Your task to perform on an android device: move a message to another label in the gmail app Image 0: 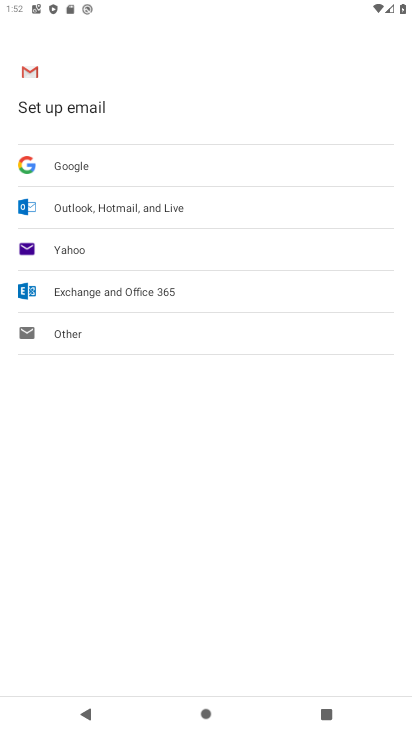
Step 0: press back button
Your task to perform on an android device: move a message to another label in the gmail app Image 1: 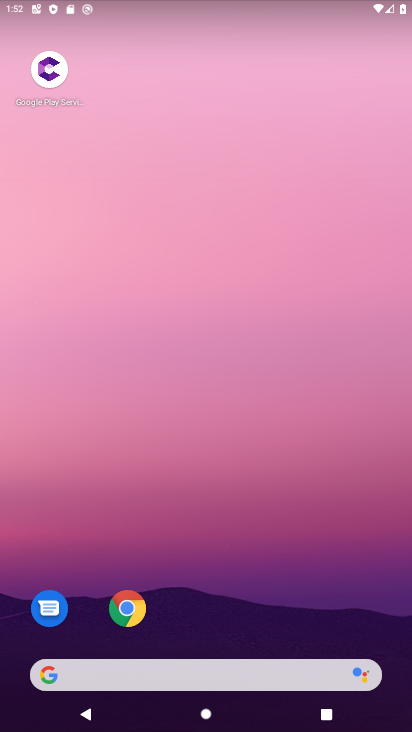
Step 1: drag from (235, 657) to (235, 207)
Your task to perform on an android device: move a message to another label in the gmail app Image 2: 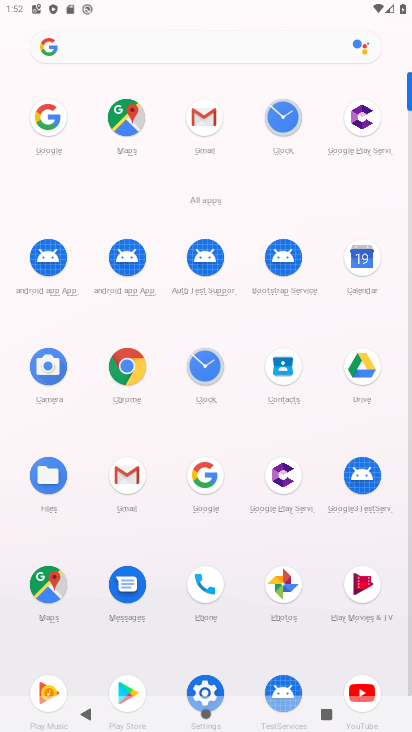
Step 2: click (200, 121)
Your task to perform on an android device: move a message to another label in the gmail app Image 3: 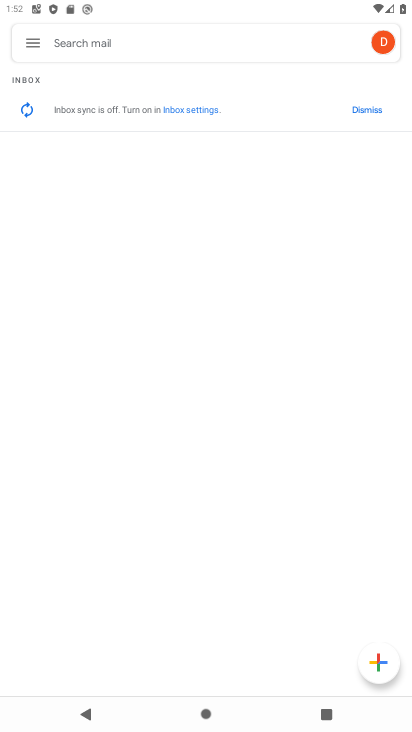
Step 3: click (30, 41)
Your task to perform on an android device: move a message to another label in the gmail app Image 4: 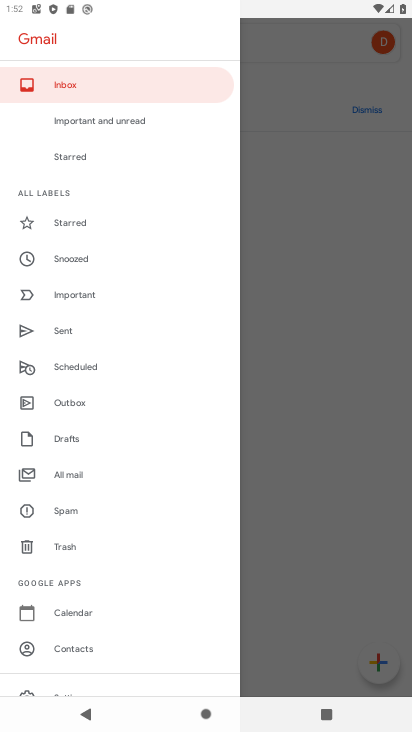
Step 4: click (72, 86)
Your task to perform on an android device: move a message to another label in the gmail app Image 5: 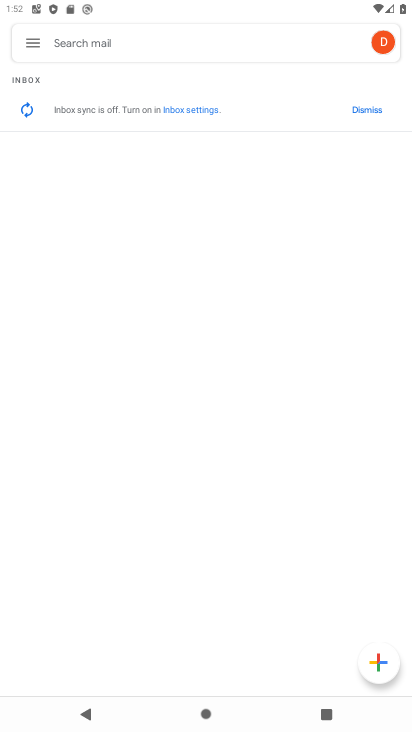
Step 5: click (200, 107)
Your task to perform on an android device: move a message to another label in the gmail app Image 6: 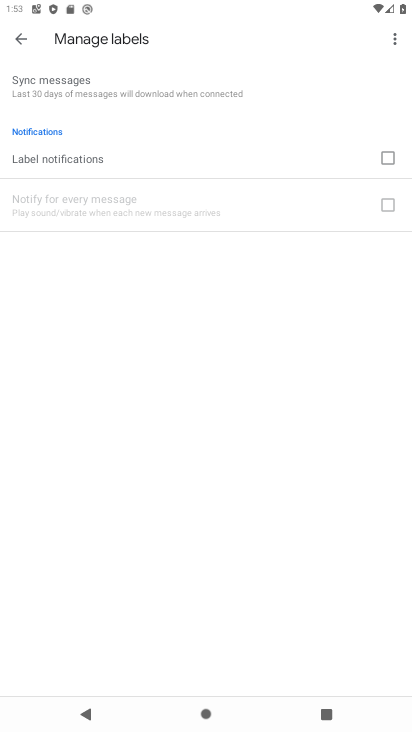
Step 6: click (86, 85)
Your task to perform on an android device: move a message to another label in the gmail app Image 7: 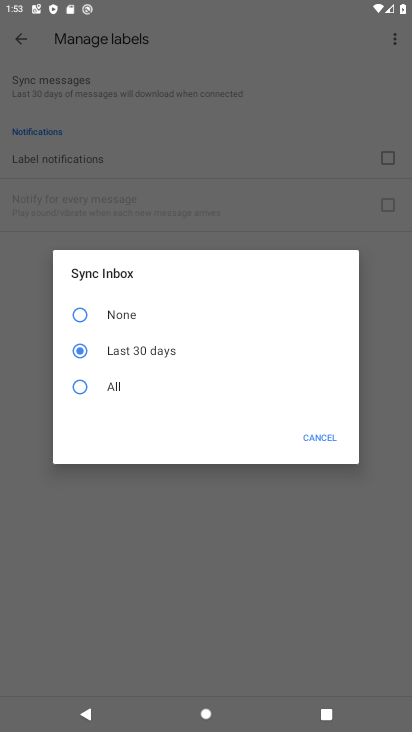
Step 7: click (79, 383)
Your task to perform on an android device: move a message to another label in the gmail app Image 8: 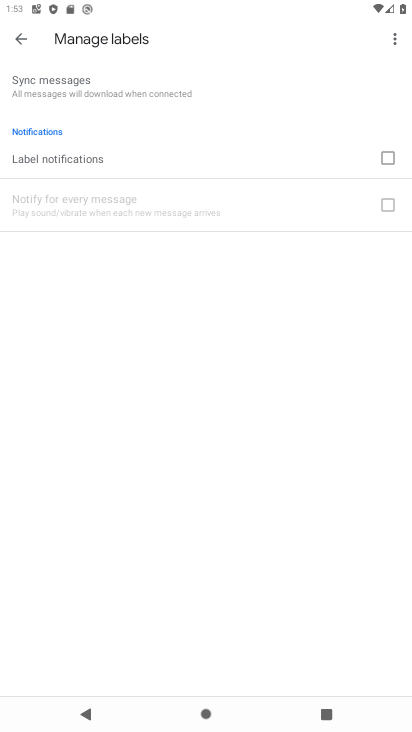
Step 8: click (22, 38)
Your task to perform on an android device: move a message to another label in the gmail app Image 9: 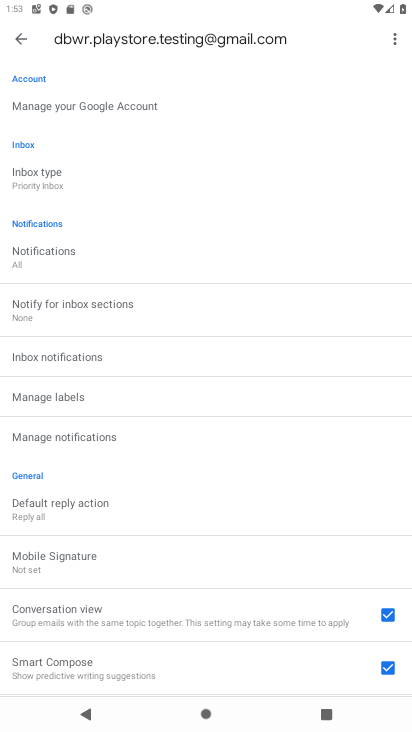
Step 9: task complete